Your task to perform on an android device: open app "Google Sheets" Image 0: 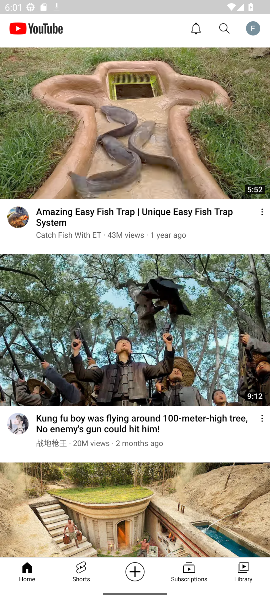
Step 0: press home button
Your task to perform on an android device: open app "Google Sheets" Image 1: 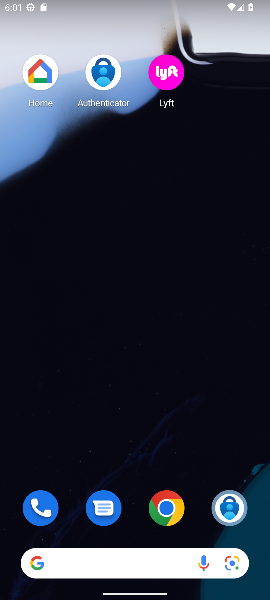
Step 1: drag from (144, 547) to (268, 510)
Your task to perform on an android device: open app "Google Sheets" Image 2: 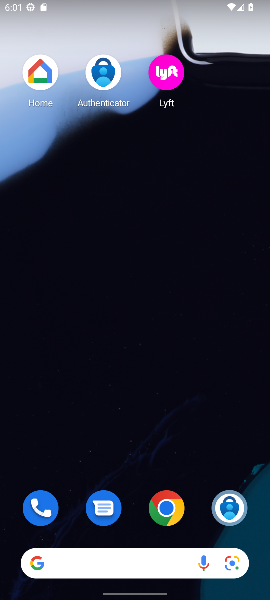
Step 2: click (50, 503)
Your task to perform on an android device: open app "Google Sheets" Image 3: 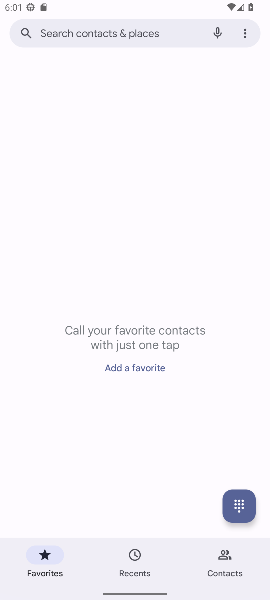
Step 3: press home button
Your task to perform on an android device: open app "Google Sheets" Image 4: 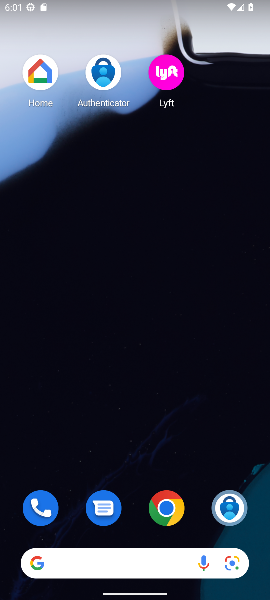
Step 4: drag from (136, 539) to (123, 85)
Your task to perform on an android device: open app "Google Sheets" Image 5: 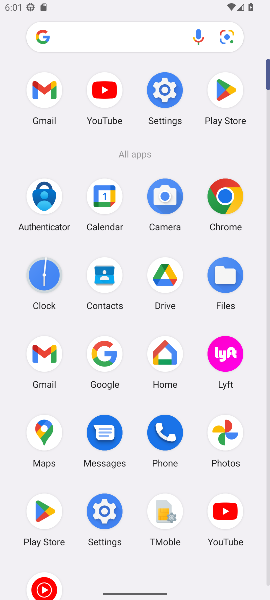
Step 5: click (32, 527)
Your task to perform on an android device: open app "Google Sheets" Image 6: 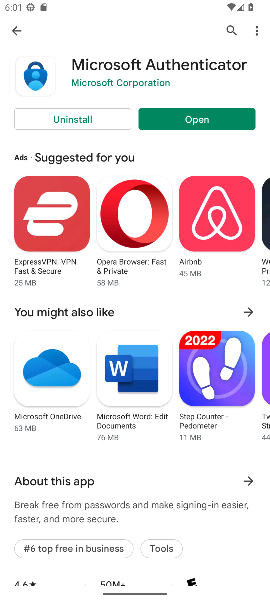
Step 6: click (18, 30)
Your task to perform on an android device: open app "Google Sheets" Image 7: 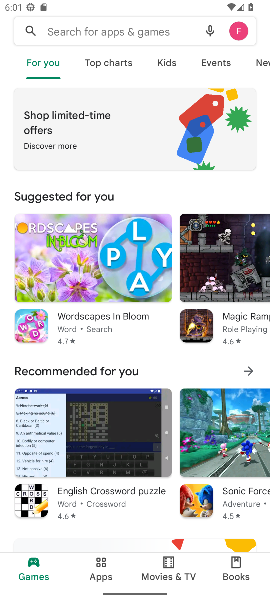
Step 7: click (83, 27)
Your task to perform on an android device: open app "Google Sheets" Image 8: 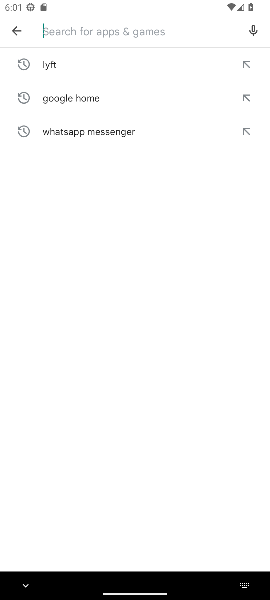
Step 8: type "Google Sheets"
Your task to perform on an android device: open app "Google Sheets" Image 9: 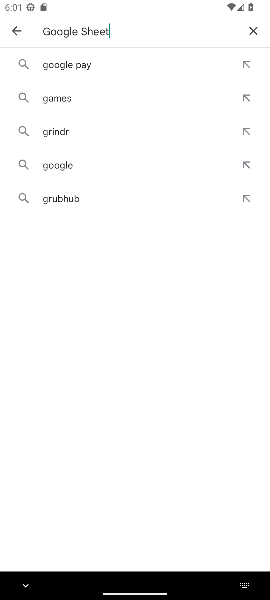
Step 9: type ""
Your task to perform on an android device: open app "Google Sheets" Image 10: 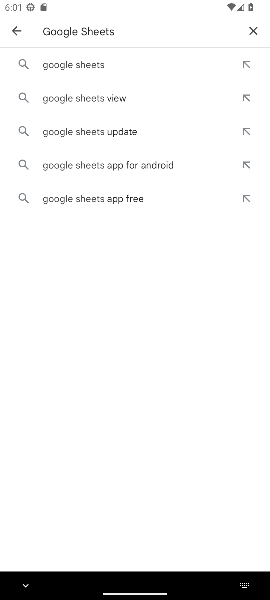
Step 10: click (87, 66)
Your task to perform on an android device: open app "Google Sheets" Image 11: 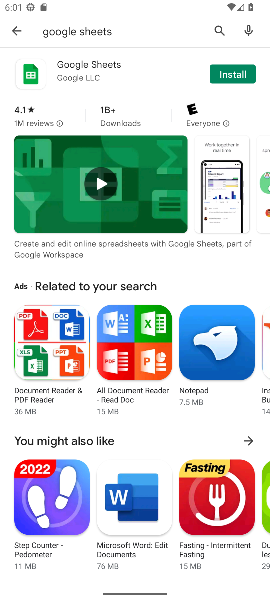
Step 11: click (105, 62)
Your task to perform on an android device: open app "Google Sheets" Image 12: 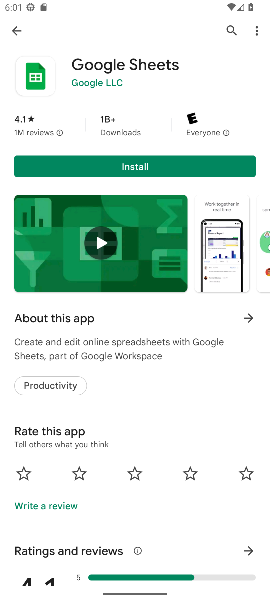
Step 12: task complete